Your task to perform on an android device: Open calendar and show me the second week of next month Image 0: 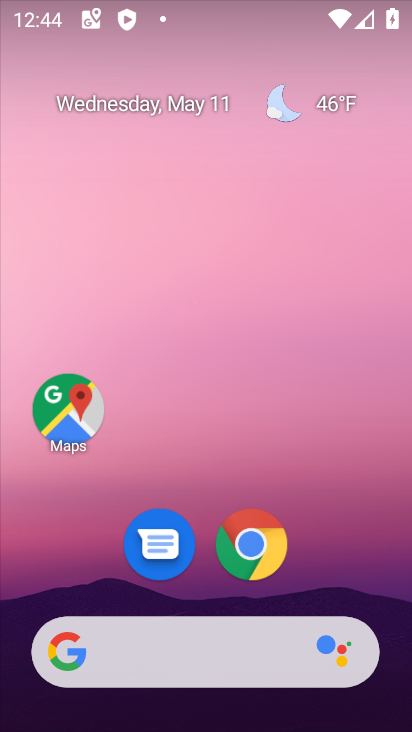
Step 0: drag from (388, 618) to (328, 89)
Your task to perform on an android device: Open calendar and show me the second week of next month Image 1: 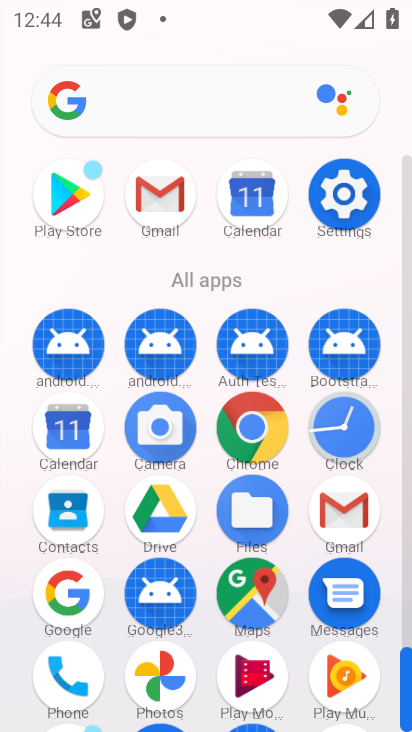
Step 1: click (408, 630)
Your task to perform on an android device: Open calendar and show me the second week of next month Image 2: 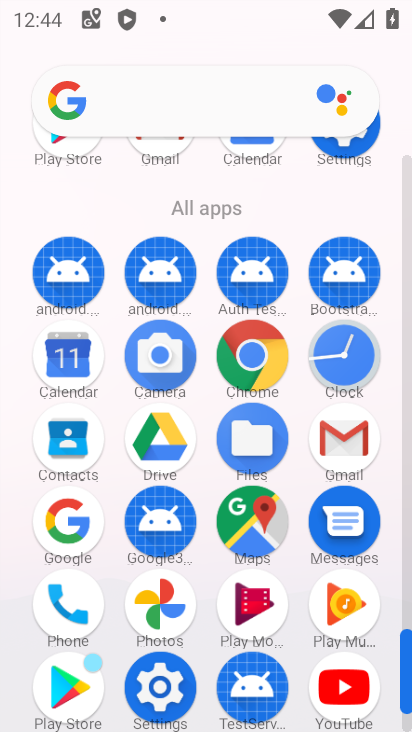
Step 2: click (73, 358)
Your task to perform on an android device: Open calendar and show me the second week of next month Image 3: 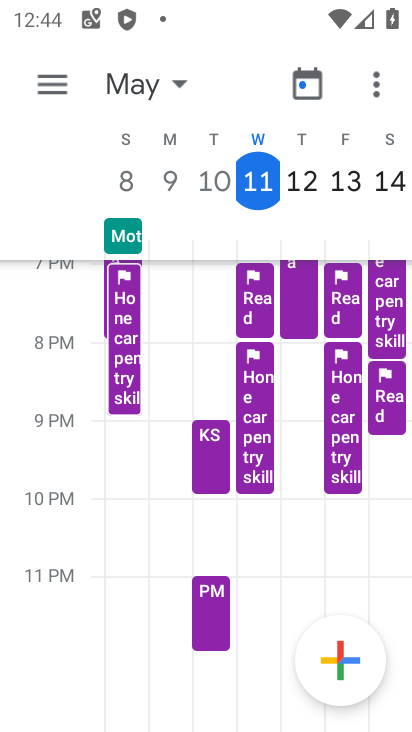
Step 3: click (46, 86)
Your task to perform on an android device: Open calendar and show me the second week of next month Image 4: 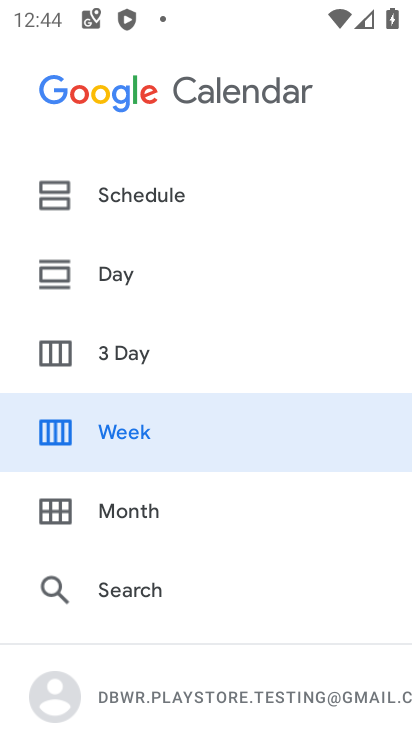
Step 4: click (134, 421)
Your task to perform on an android device: Open calendar and show me the second week of next month Image 5: 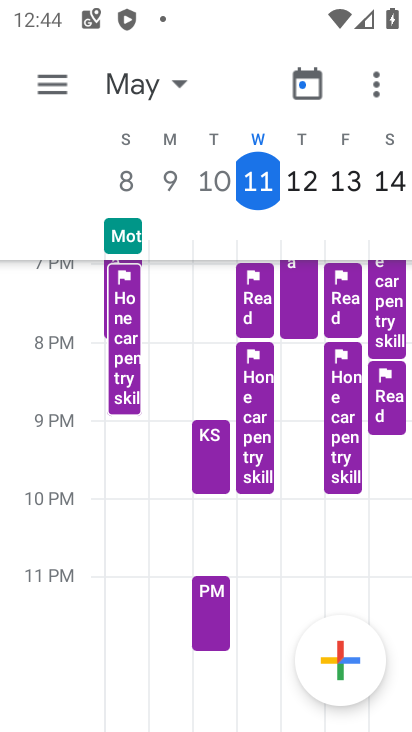
Step 5: click (174, 84)
Your task to perform on an android device: Open calendar and show me the second week of next month Image 6: 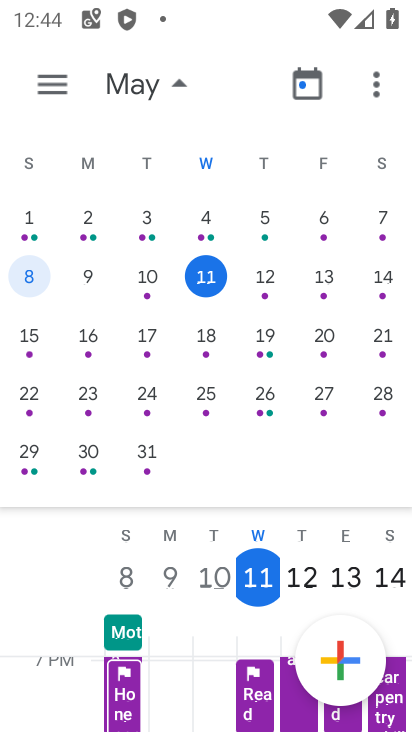
Step 6: drag from (377, 359) to (0, 227)
Your task to perform on an android device: Open calendar and show me the second week of next month Image 7: 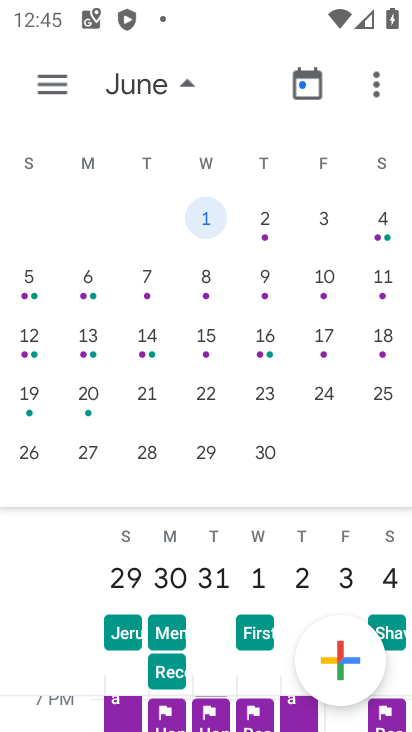
Step 7: click (31, 277)
Your task to perform on an android device: Open calendar and show me the second week of next month Image 8: 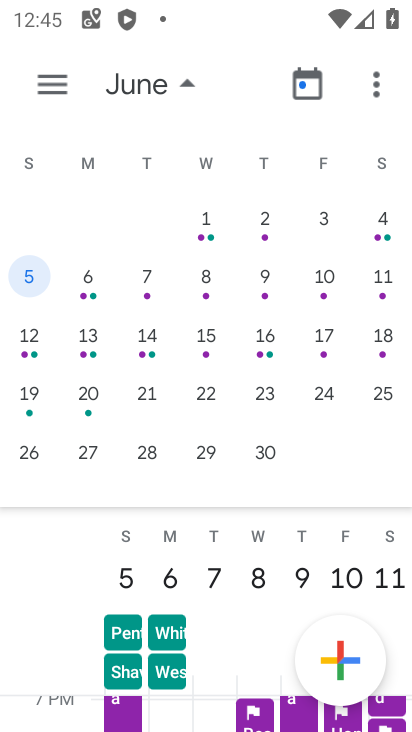
Step 8: task complete